Your task to perform on an android device: Do I have any events this weekend? Image 0: 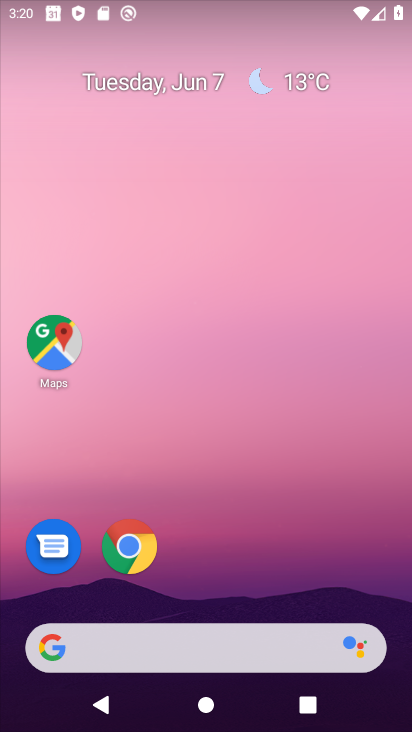
Step 0: click (195, 73)
Your task to perform on an android device: Do I have any events this weekend? Image 1: 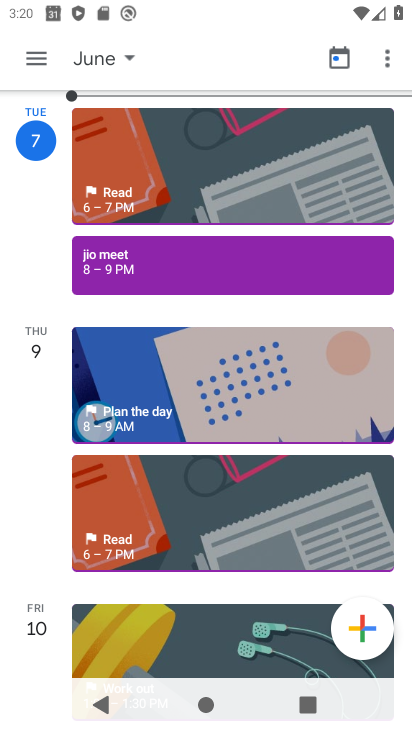
Step 1: click (137, 63)
Your task to perform on an android device: Do I have any events this weekend? Image 2: 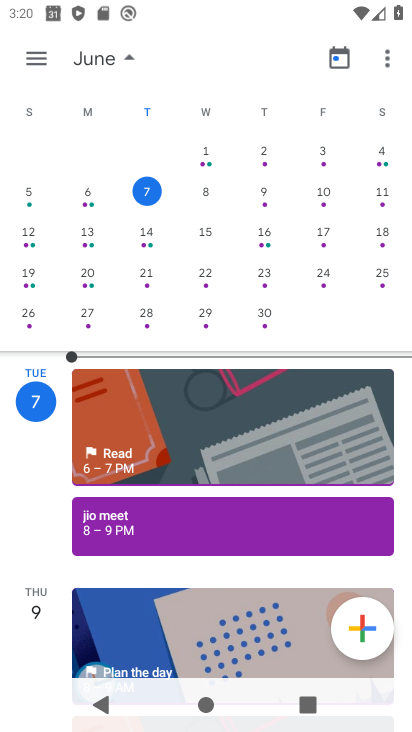
Step 2: click (388, 200)
Your task to perform on an android device: Do I have any events this weekend? Image 3: 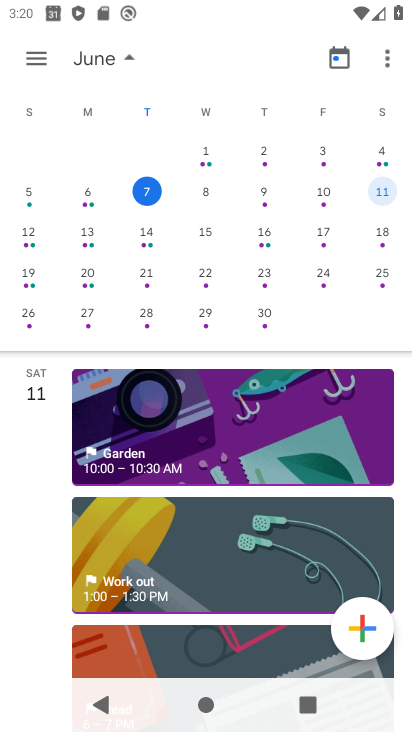
Step 3: click (119, 454)
Your task to perform on an android device: Do I have any events this weekend? Image 4: 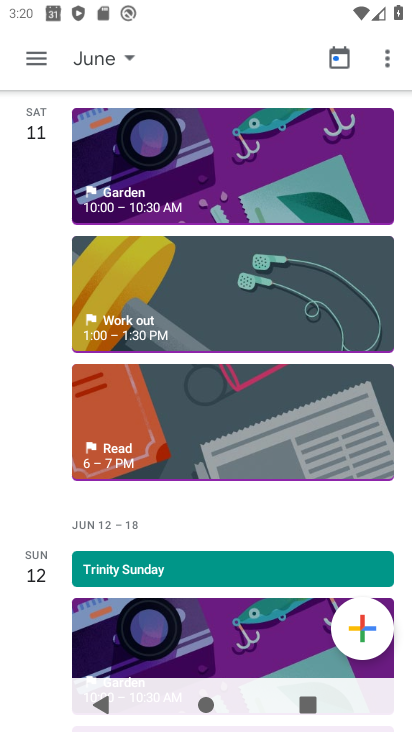
Step 4: task complete